Your task to perform on an android device: Go to privacy settings Image 0: 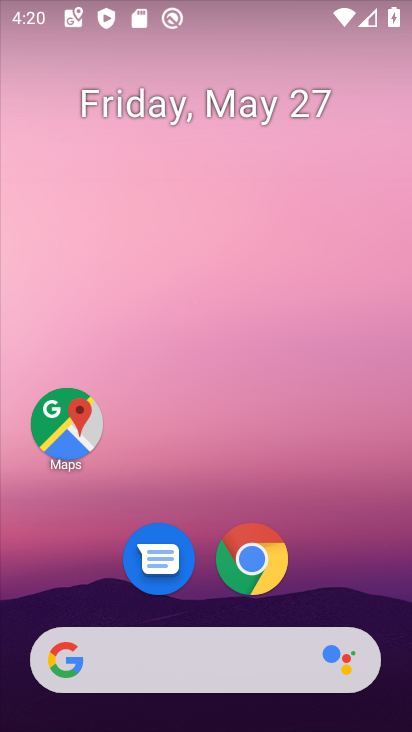
Step 0: click (254, 548)
Your task to perform on an android device: Go to privacy settings Image 1: 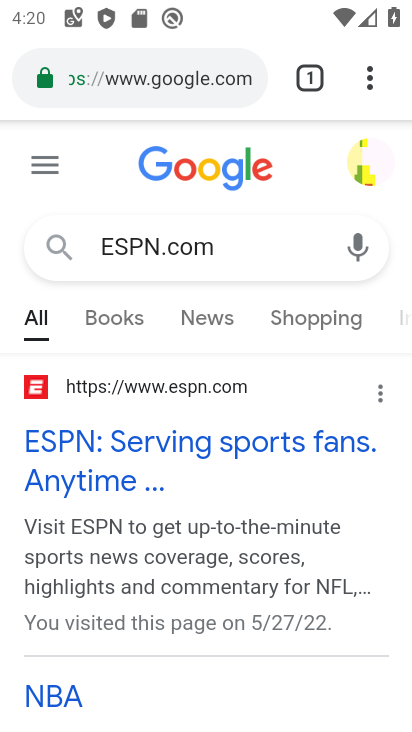
Step 1: click (373, 77)
Your task to perform on an android device: Go to privacy settings Image 2: 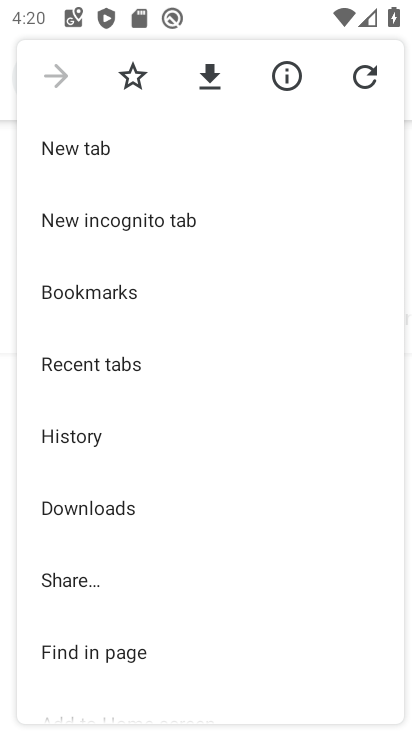
Step 2: drag from (203, 637) to (230, 205)
Your task to perform on an android device: Go to privacy settings Image 3: 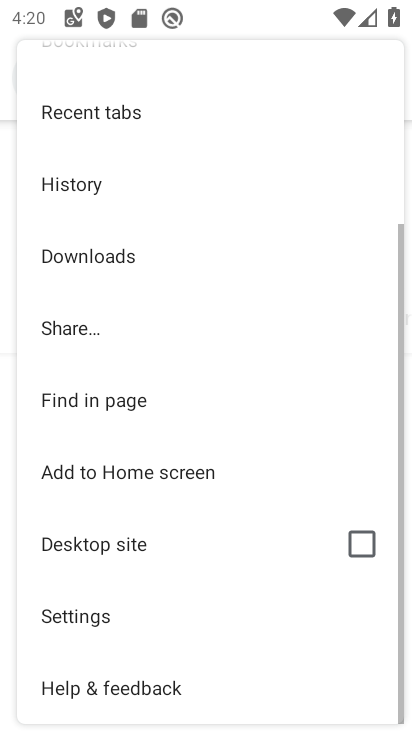
Step 3: click (78, 611)
Your task to perform on an android device: Go to privacy settings Image 4: 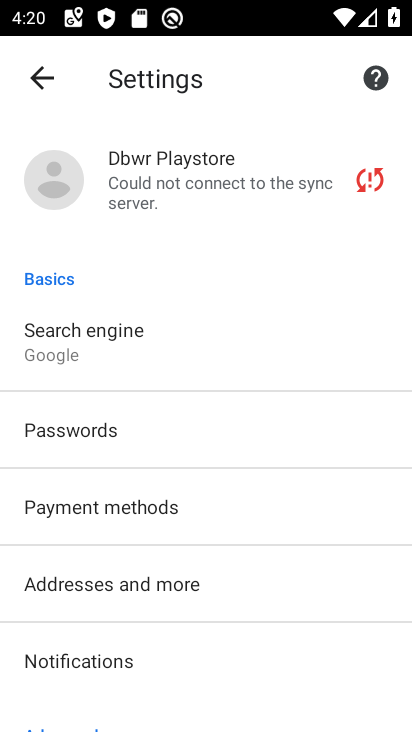
Step 4: drag from (200, 690) to (221, 261)
Your task to perform on an android device: Go to privacy settings Image 5: 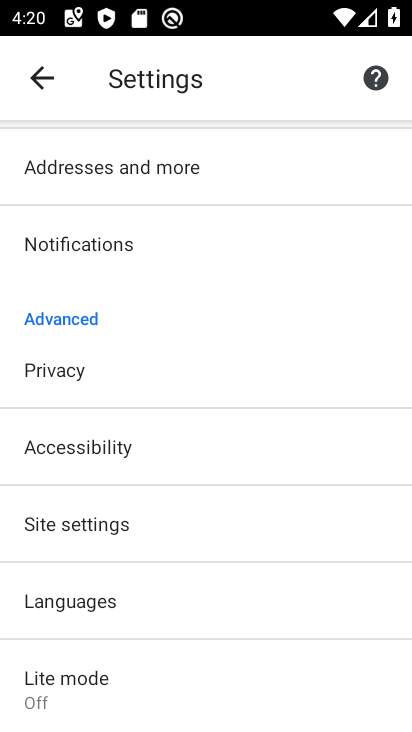
Step 5: click (49, 362)
Your task to perform on an android device: Go to privacy settings Image 6: 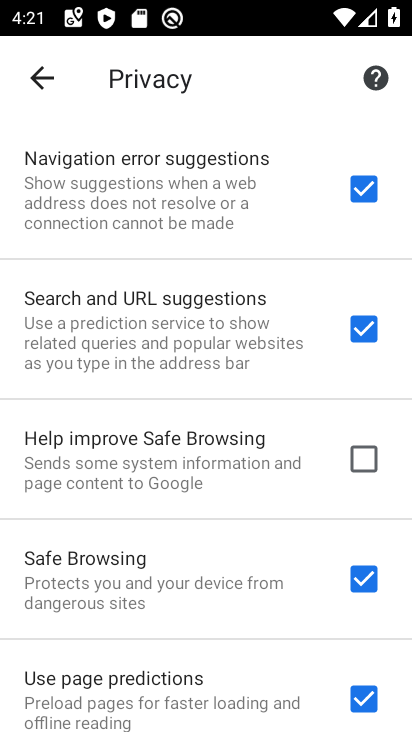
Step 6: task complete